Your task to perform on an android device: check android version Image 0: 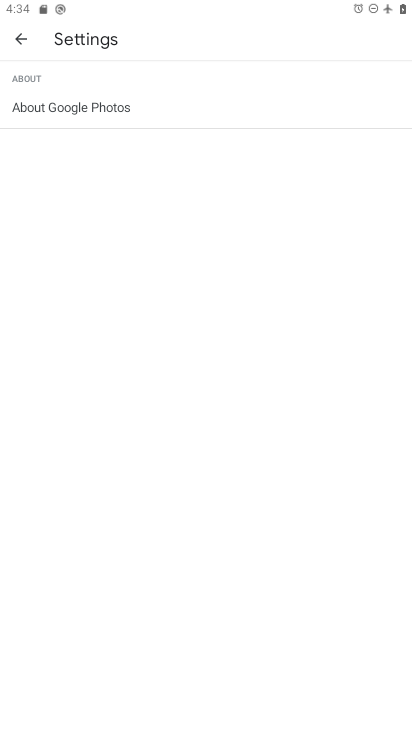
Step 0: press home button
Your task to perform on an android device: check android version Image 1: 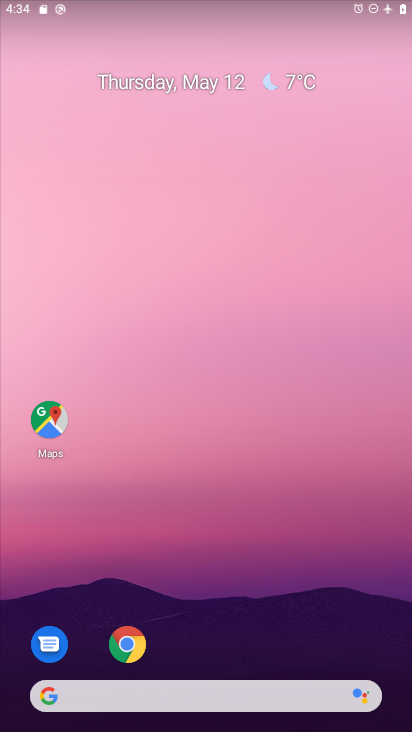
Step 1: drag from (207, 638) to (287, 282)
Your task to perform on an android device: check android version Image 2: 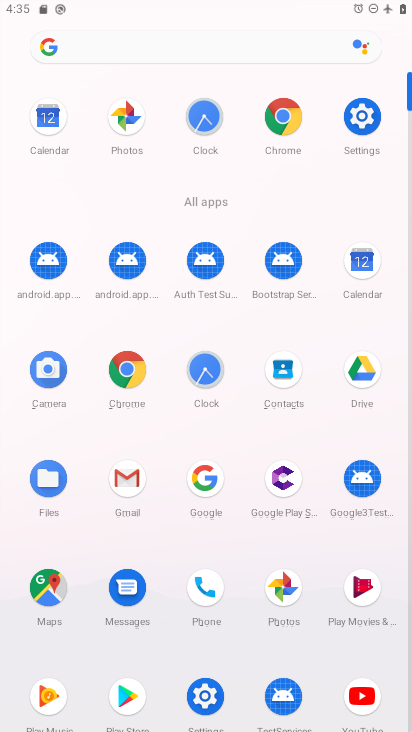
Step 2: click (361, 128)
Your task to perform on an android device: check android version Image 3: 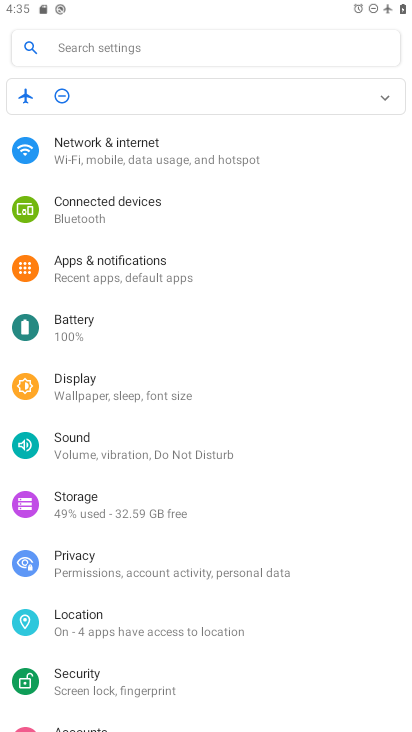
Step 3: drag from (130, 559) to (191, 224)
Your task to perform on an android device: check android version Image 4: 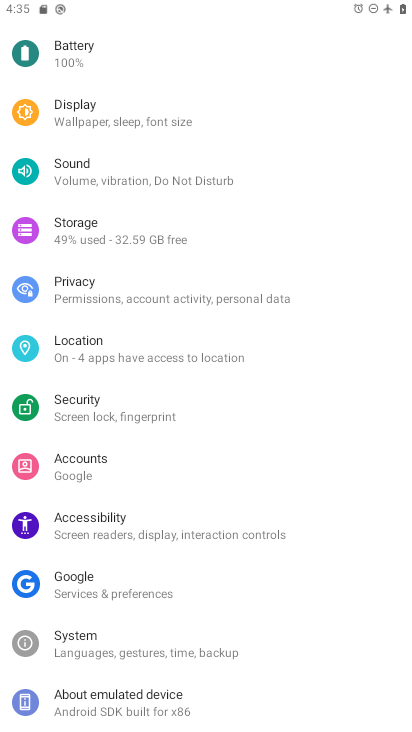
Step 4: drag from (118, 607) to (187, 328)
Your task to perform on an android device: check android version Image 5: 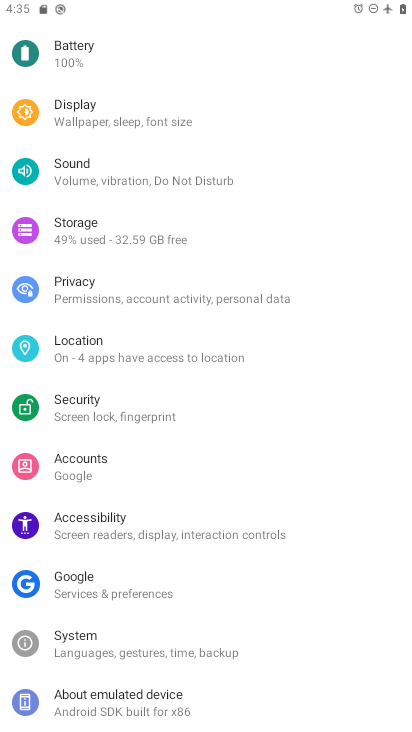
Step 5: click (105, 688)
Your task to perform on an android device: check android version Image 6: 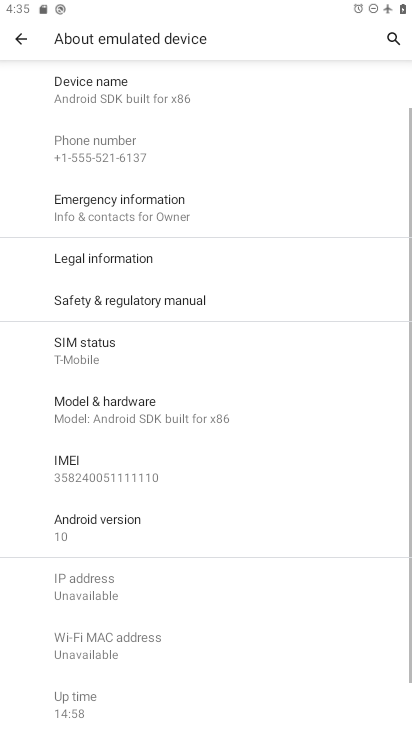
Step 6: click (101, 544)
Your task to perform on an android device: check android version Image 7: 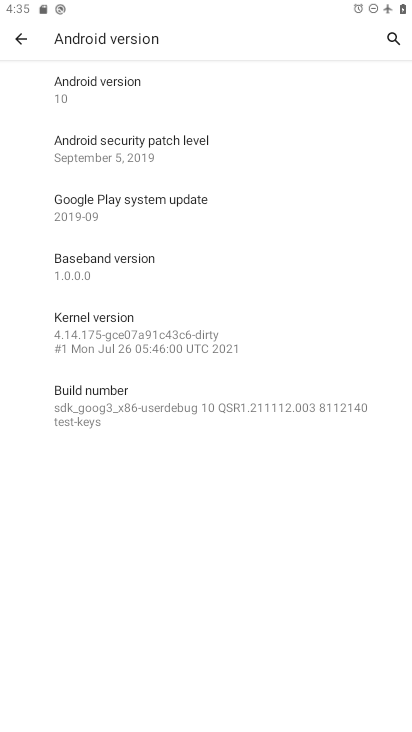
Step 7: task complete